Your task to perform on an android device: Search for vegetarian restaurants on Maps Image 0: 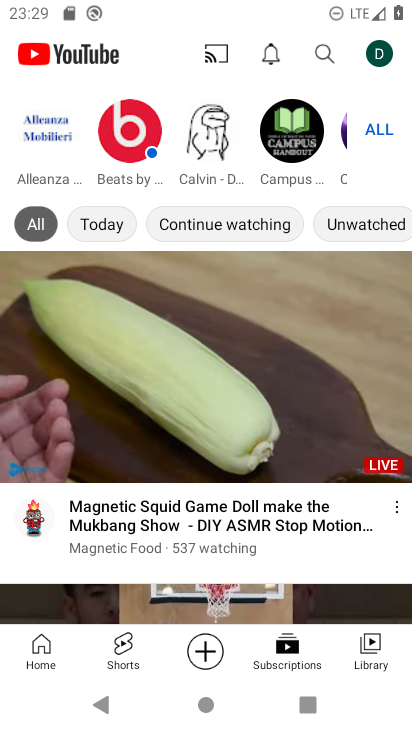
Step 0: press home button
Your task to perform on an android device: Search for vegetarian restaurants on Maps Image 1: 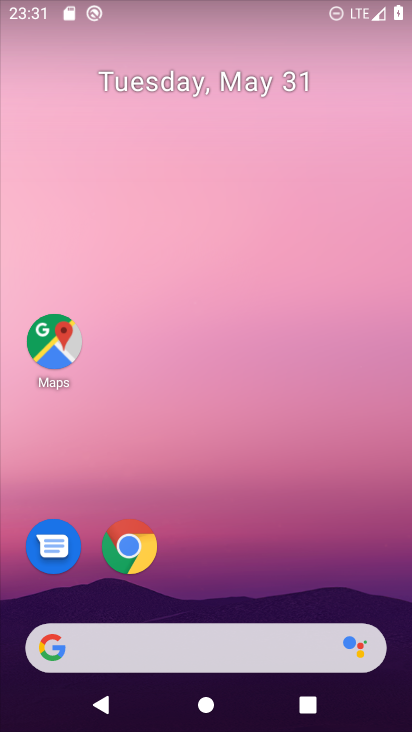
Step 1: drag from (389, 492) to (360, 146)
Your task to perform on an android device: Search for vegetarian restaurants on Maps Image 2: 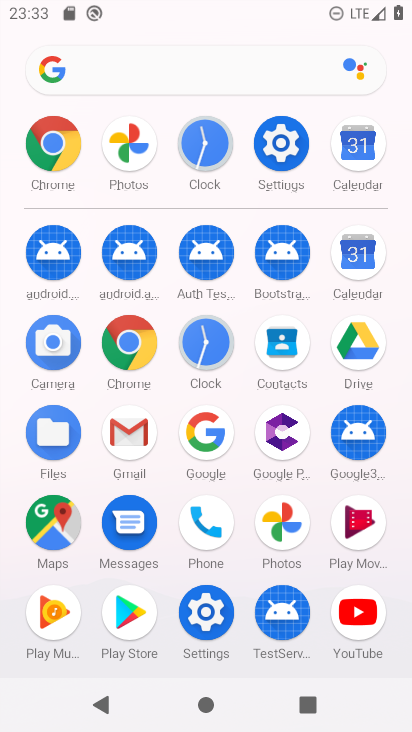
Step 2: click (59, 512)
Your task to perform on an android device: Search for vegetarian restaurants on Maps Image 3: 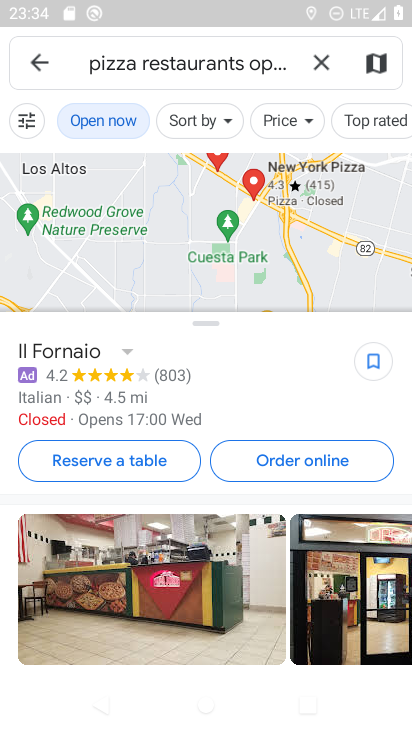
Step 3: click (322, 65)
Your task to perform on an android device: Search for vegetarian restaurants on Maps Image 4: 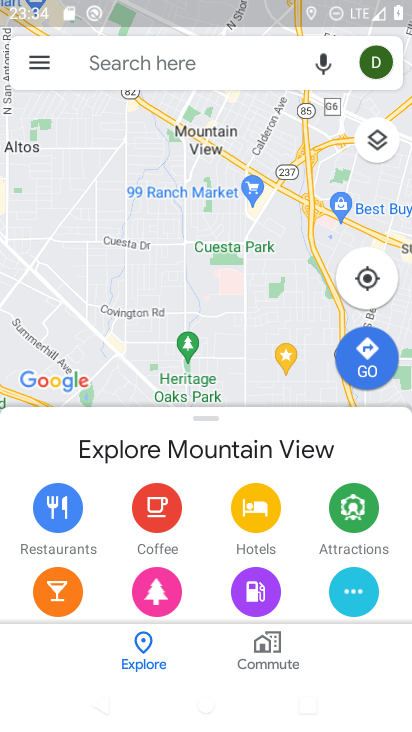
Step 4: click (132, 71)
Your task to perform on an android device: Search for vegetarian restaurants on Maps Image 5: 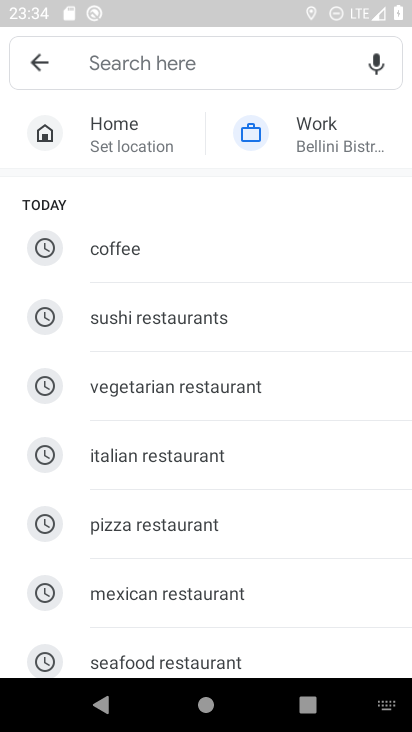
Step 5: type "vegetarian restaurants"
Your task to perform on an android device: Search for vegetarian restaurants on Maps Image 6: 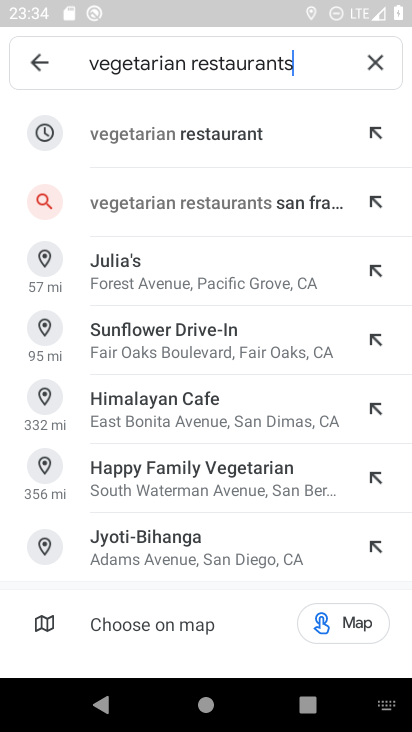
Step 6: click (162, 146)
Your task to perform on an android device: Search for vegetarian restaurants on Maps Image 7: 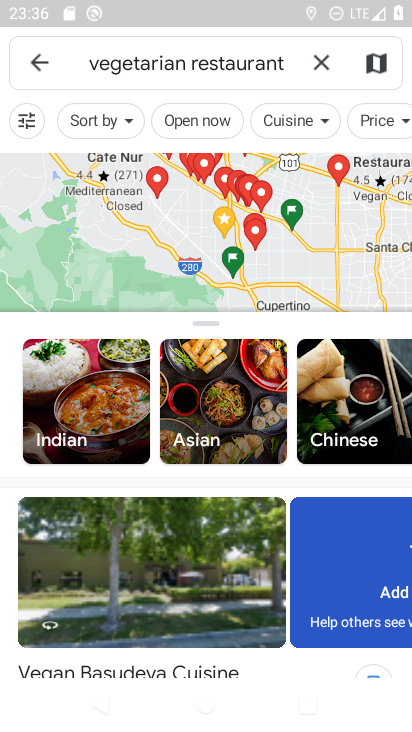
Step 7: task complete